Your task to perform on an android device: turn on wifi Image 0: 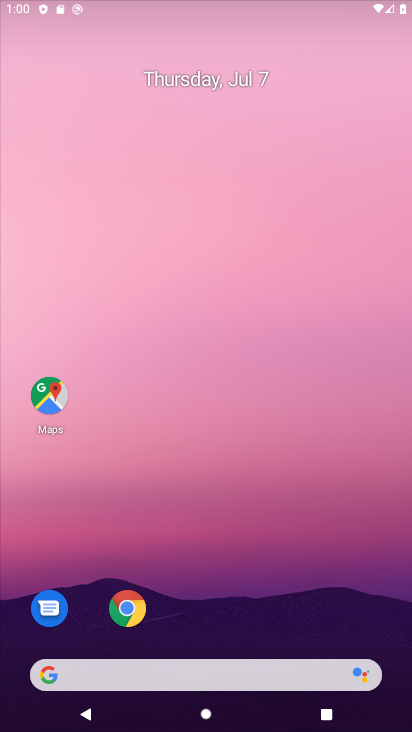
Step 0: click (122, 616)
Your task to perform on an android device: turn on wifi Image 1: 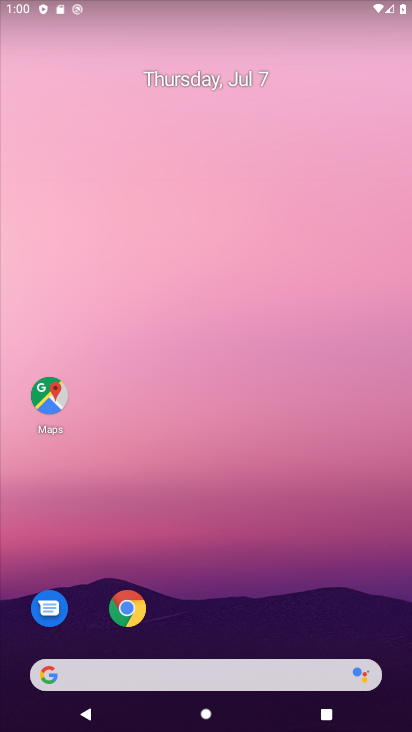
Step 1: task complete